Your task to perform on an android device: turn off sleep mode Image 0: 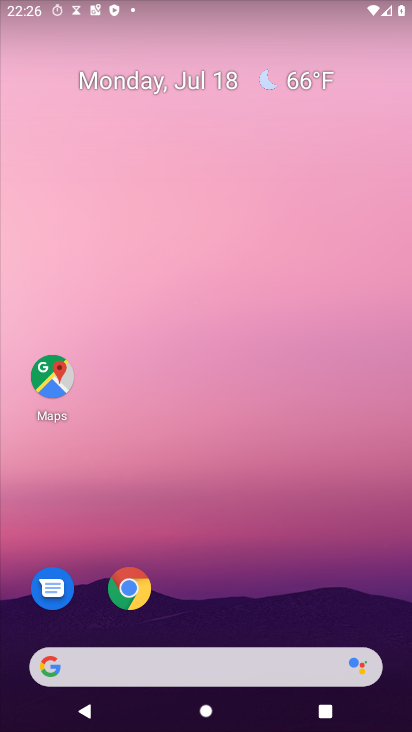
Step 0: drag from (170, 659) to (375, 60)
Your task to perform on an android device: turn off sleep mode Image 1: 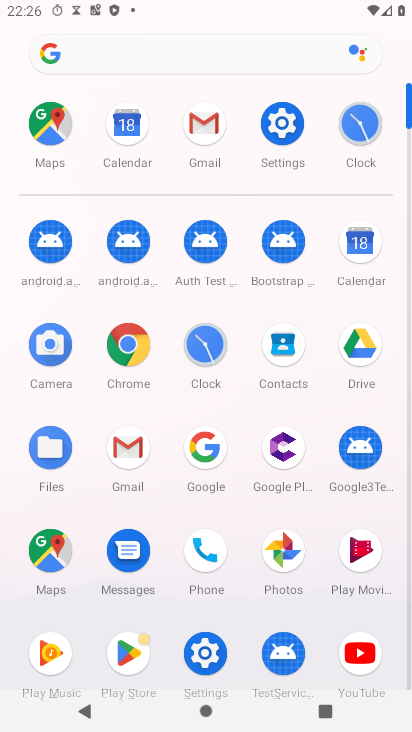
Step 1: click (285, 122)
Your task to perform on an android device: turn off sleep mode Image 2: 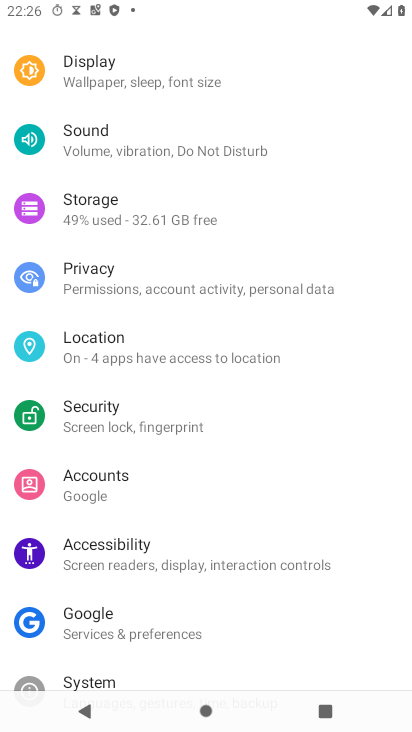
Step 2: drag from (355, 97) to (219, 578)
Your task to perform on an android device: turn off sleep mode Image 3: 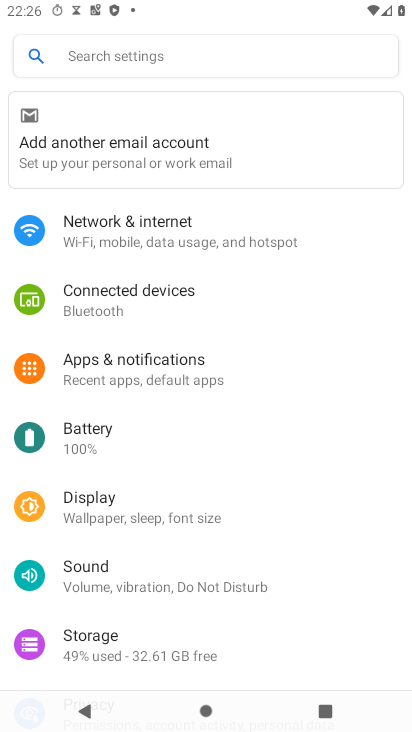
Step 3: click (154, 518)
Your task to perform on an android device: turn off sleep mode Image 4: 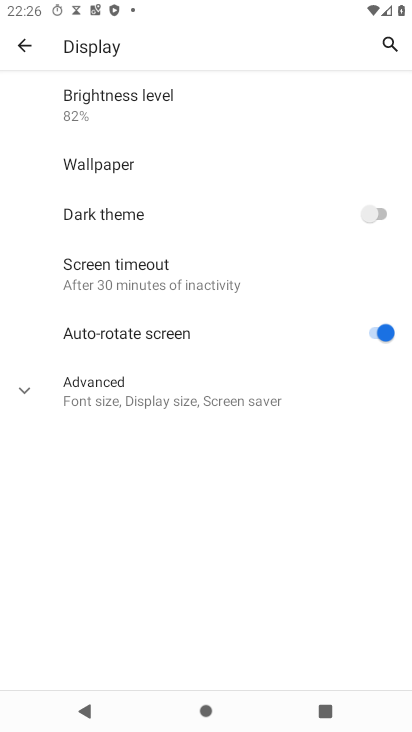
Step 4: task complete